Your task to perform on an android device: turn notification dots off Image 0: 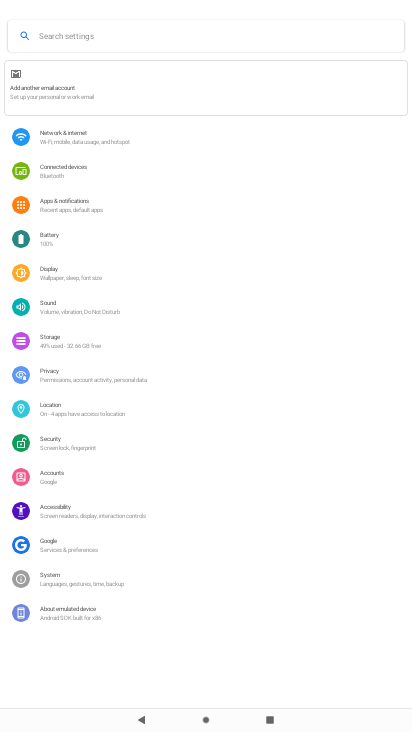
Step 0: task complete